Your task to perform on an android device: toggle wifi Image 0: 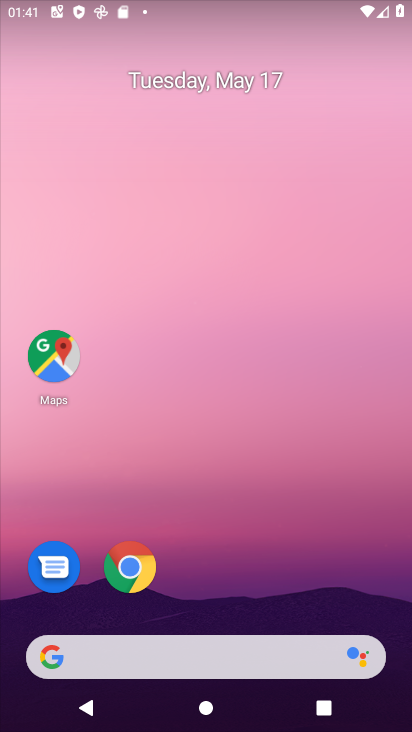
Step 0: drag from (396, 619) to (302, 56)
Your task to perform on an android device: toggle wifi Image 1: 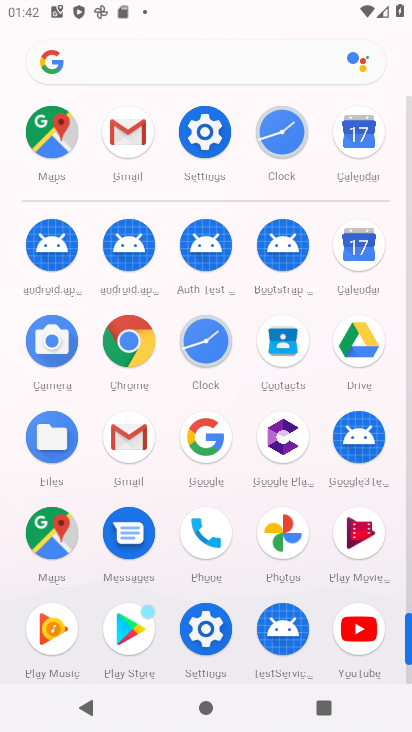
Step 1: click (206, 631)
Your task to perform on an android device: toggle wifi Image 2: 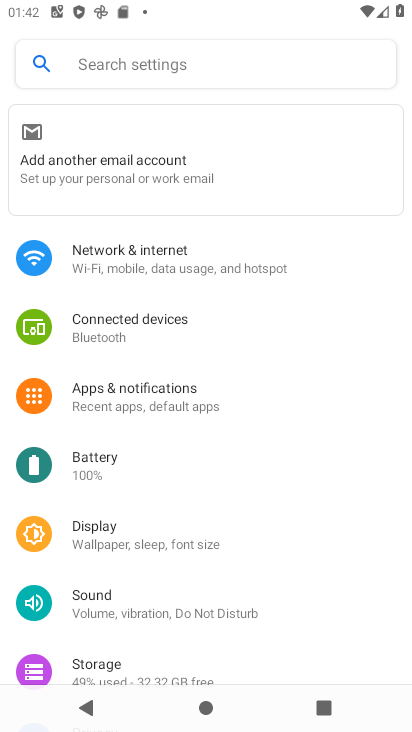
Step 2: click (123, 256)
Your task to perform on an android device: toggle wifi Image 3: 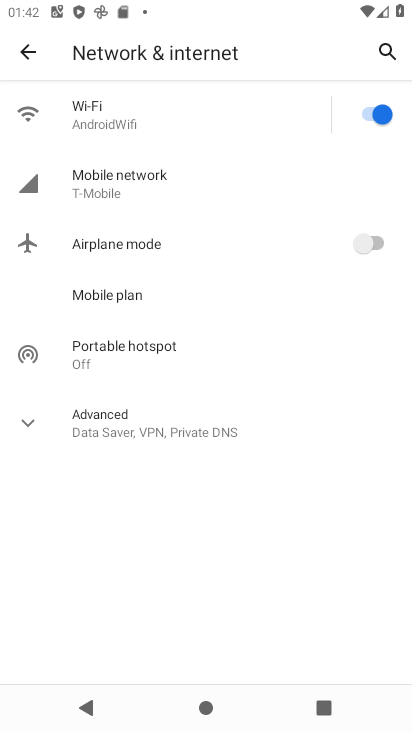
Step 3: click (362, 112)
Your task to perform on an android device: toggle wifi Image 4: 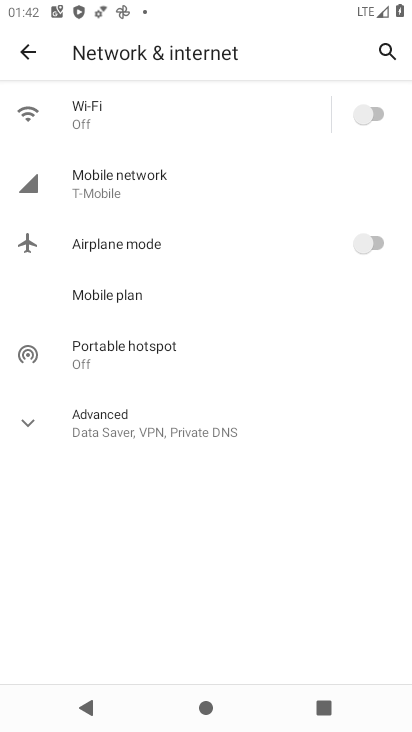
Step 4: task complete